Your task to perform on an android device: open app "Spotify" (install if not already installed) and enter user name: "infallible@icloud.com" and password: "implored" Image 0: 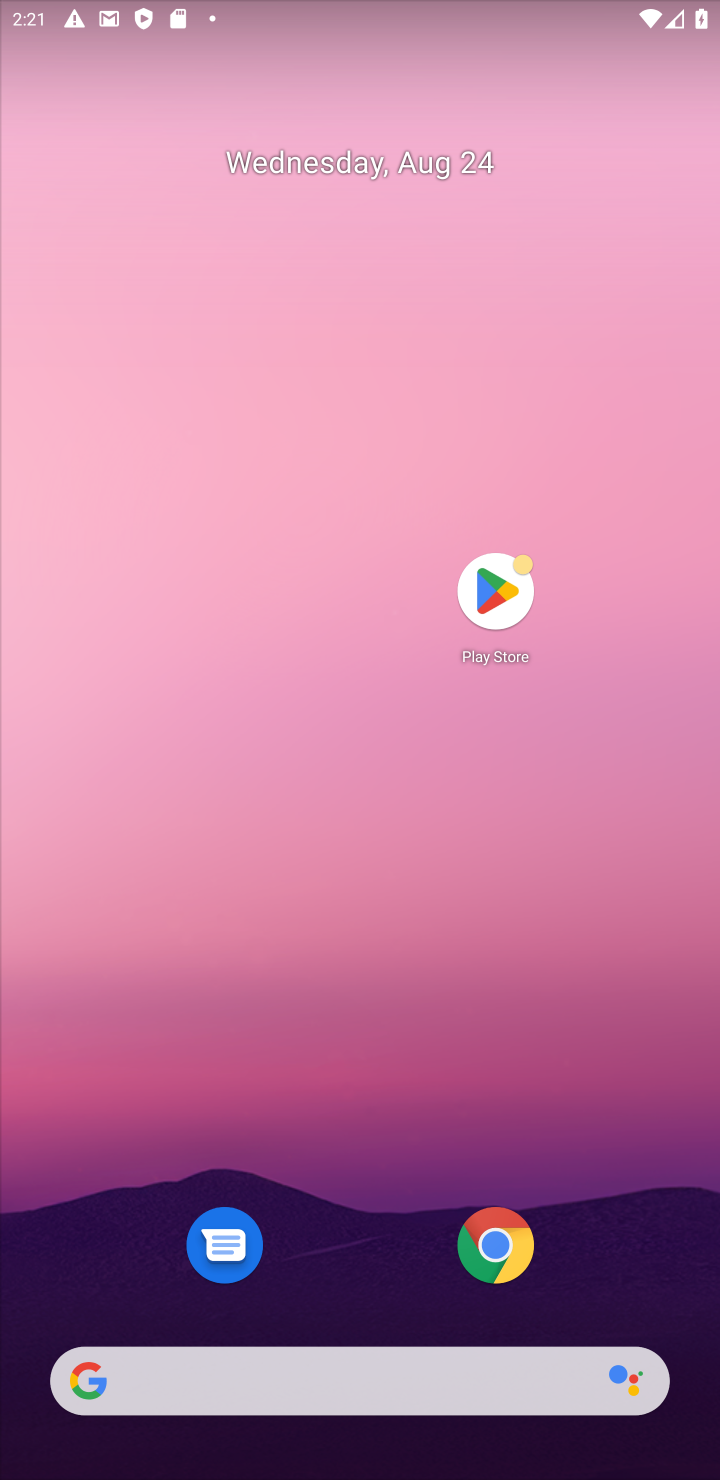
Step 0: click (491, 584)
Your task to perform on an android device: open app "Spotify" (install if not already installed) and enter user name: "infallible@icloud.com" and password: "implored" Image 1: 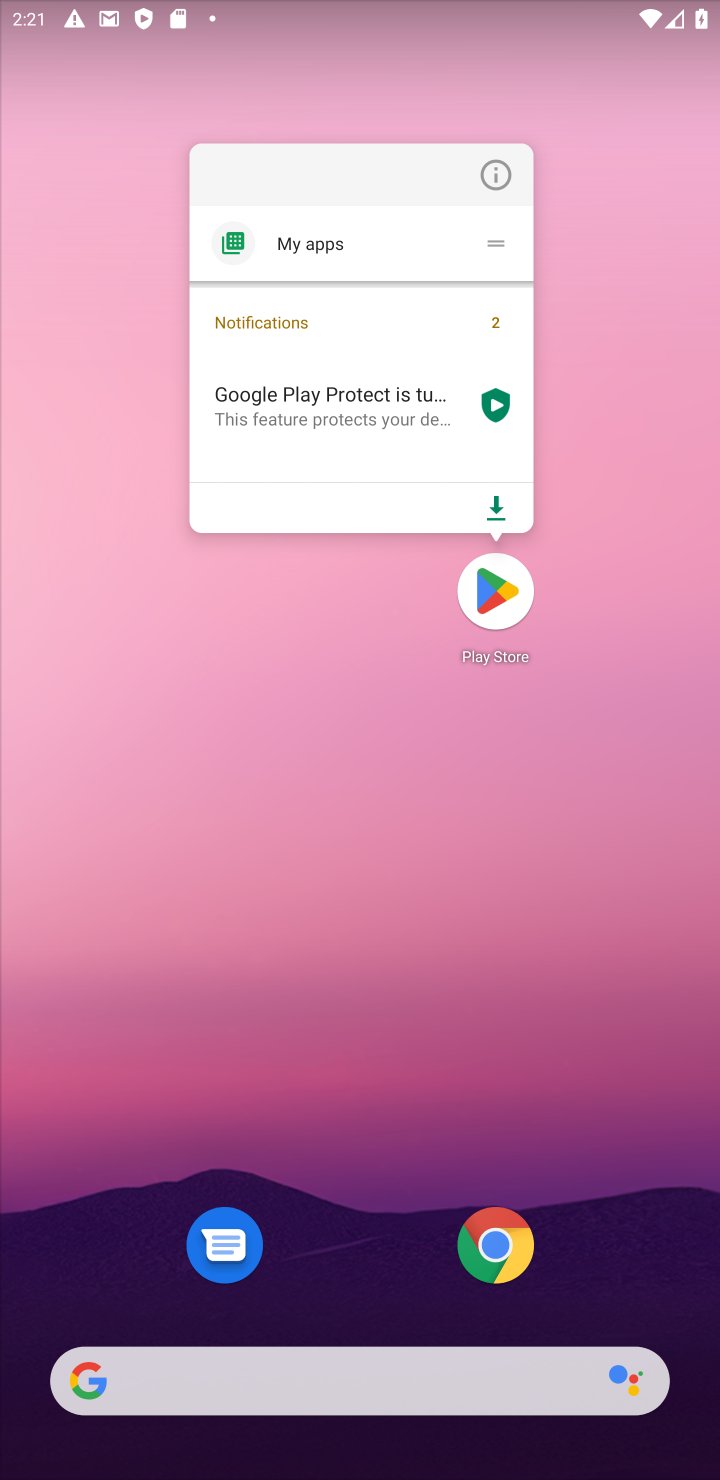
Step 1: click (491, 595)
Your task to perform on an android device: open app "Spotify" (install if not already installed) and enter user name: "infallible@icloud.com" and password: "implored" Image 2: 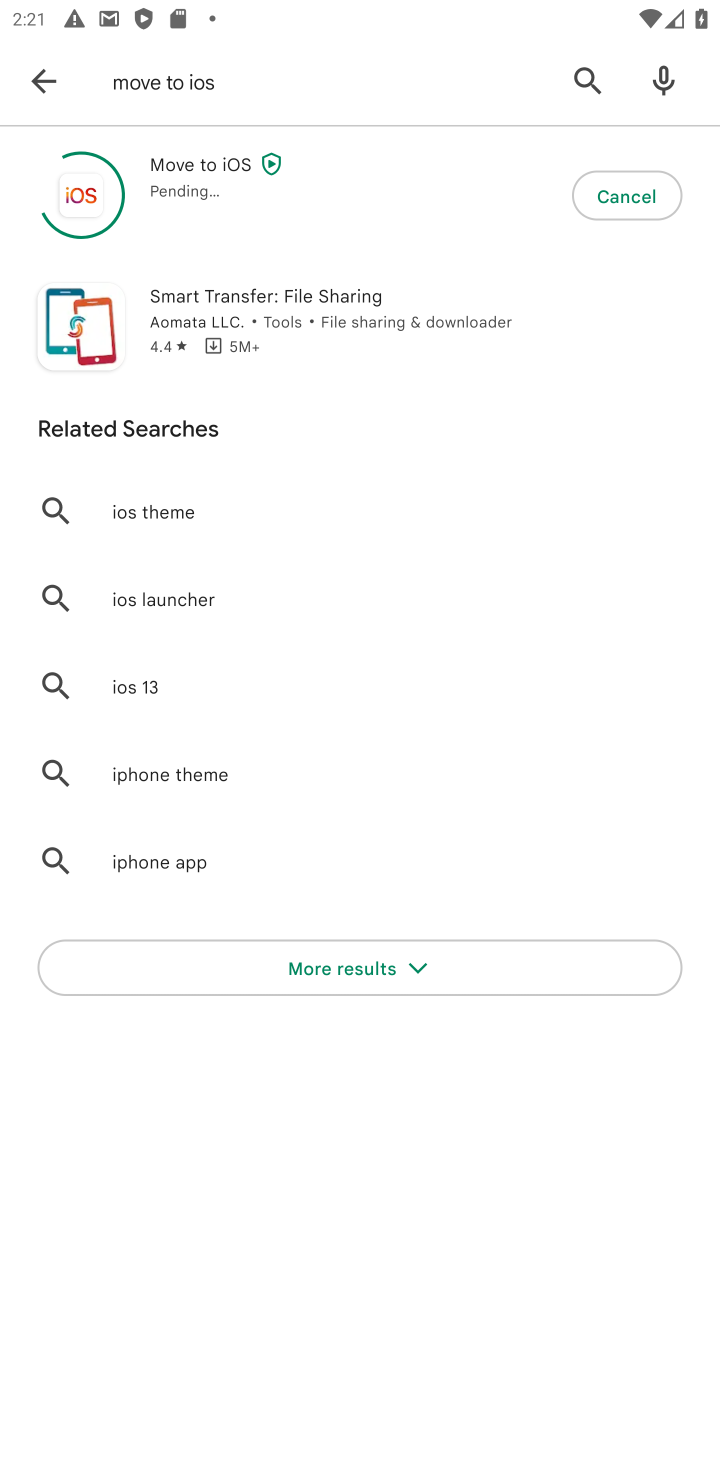
Step 2: click (585, 70)
Your task to perform on an android device: open app "Spotify" (install if not already installed) and enter user name: "infallible@icloud.com" and password: "implored" Image 3: 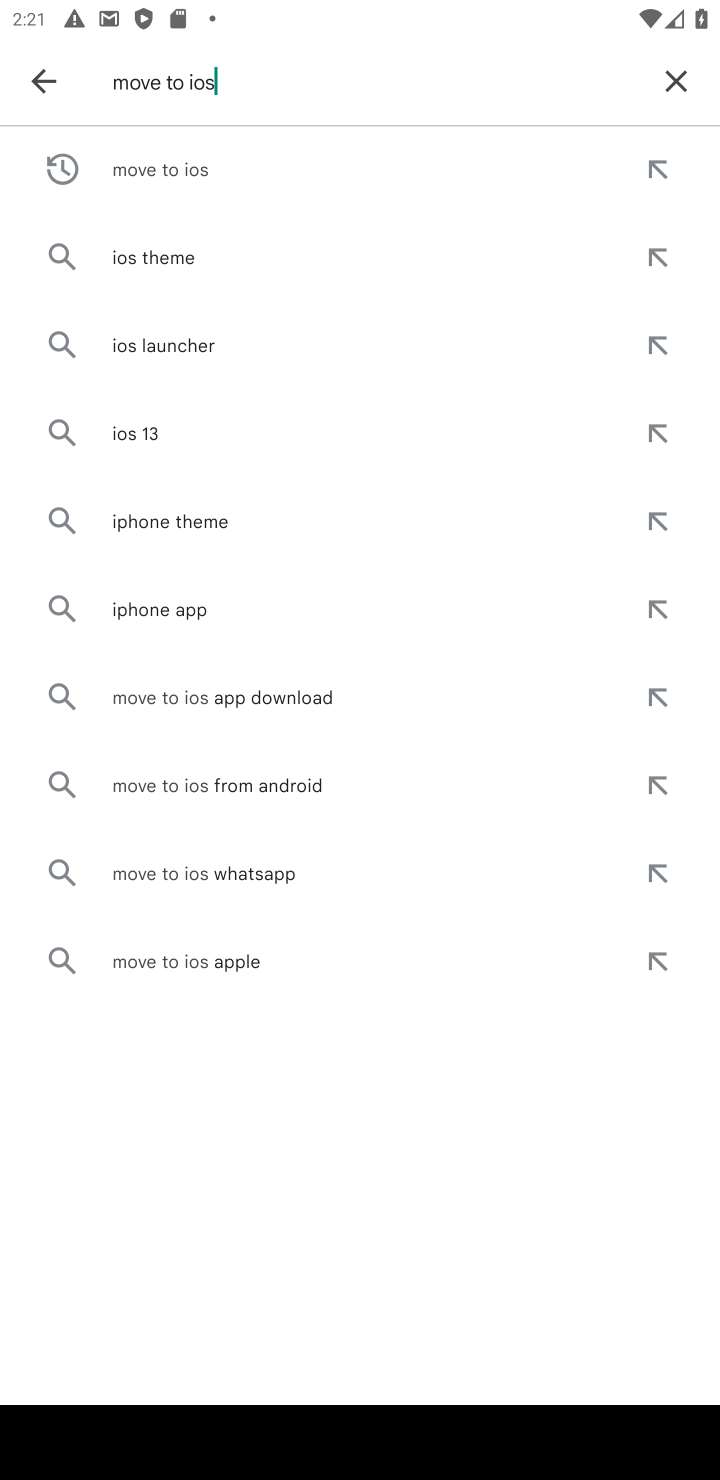
Step 3: click (664, 69)
Your task to perform on an android device: open app "Spotify" (install if not already installed) and enter user name: "infallible@icloud.com" and password: "implored" Image 4: 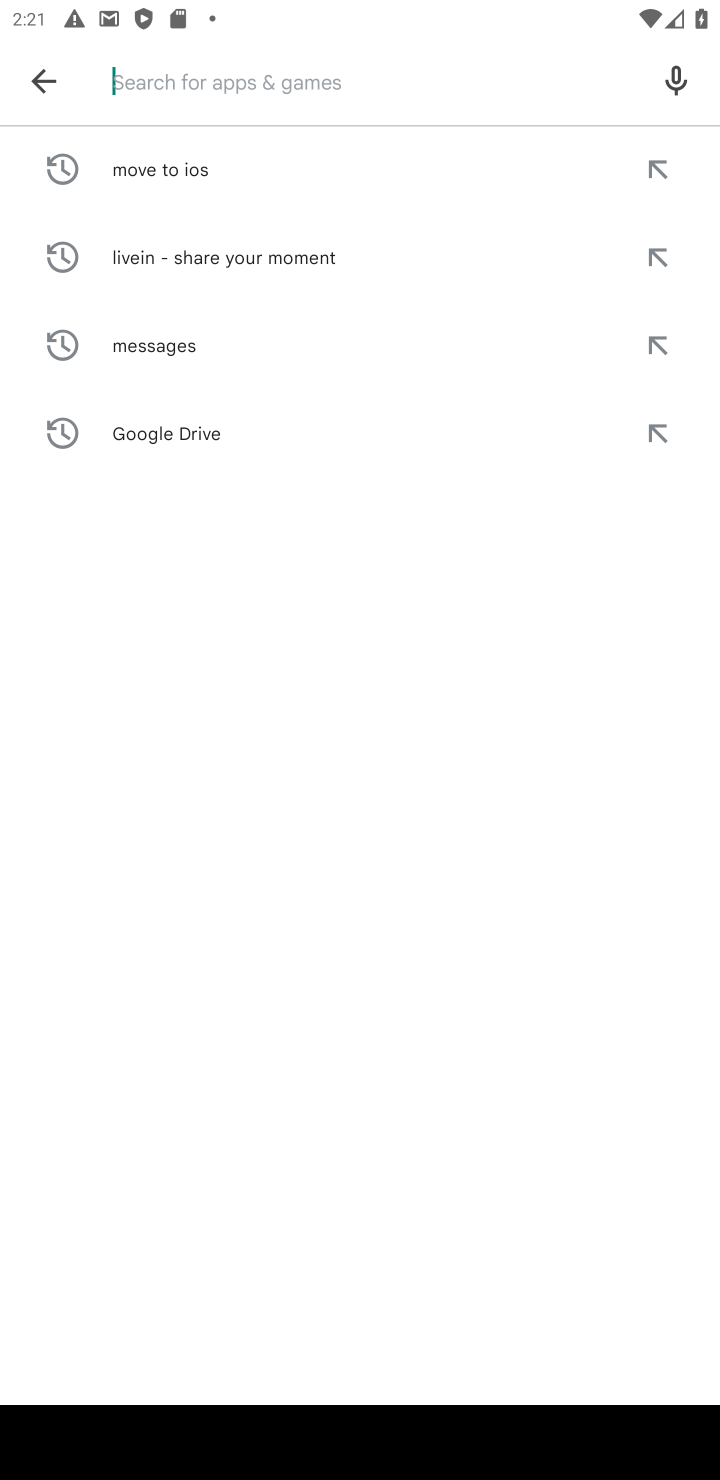
Step 4: type "Spotify"
Your task to perform on an android device: open app "Spotify" (install if not already installed) and enter user name: "infallible@icloud.com" and password: "implored" Image 5: 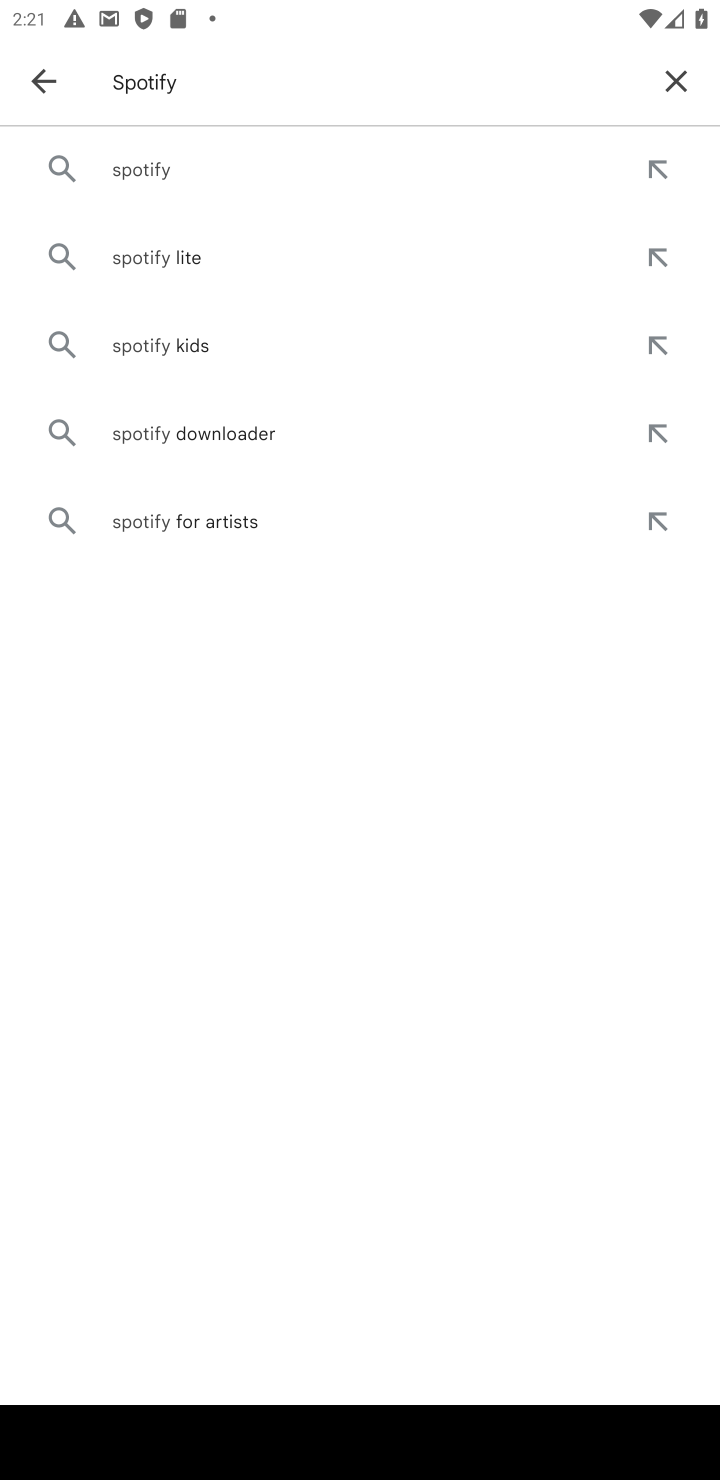
Step 5: click (114, 172)
Your task to perform on an android device: open app "Spotify" (install if not already installed) and enter user name: "infallible@icloud.com" and password: "implored" Image 6: 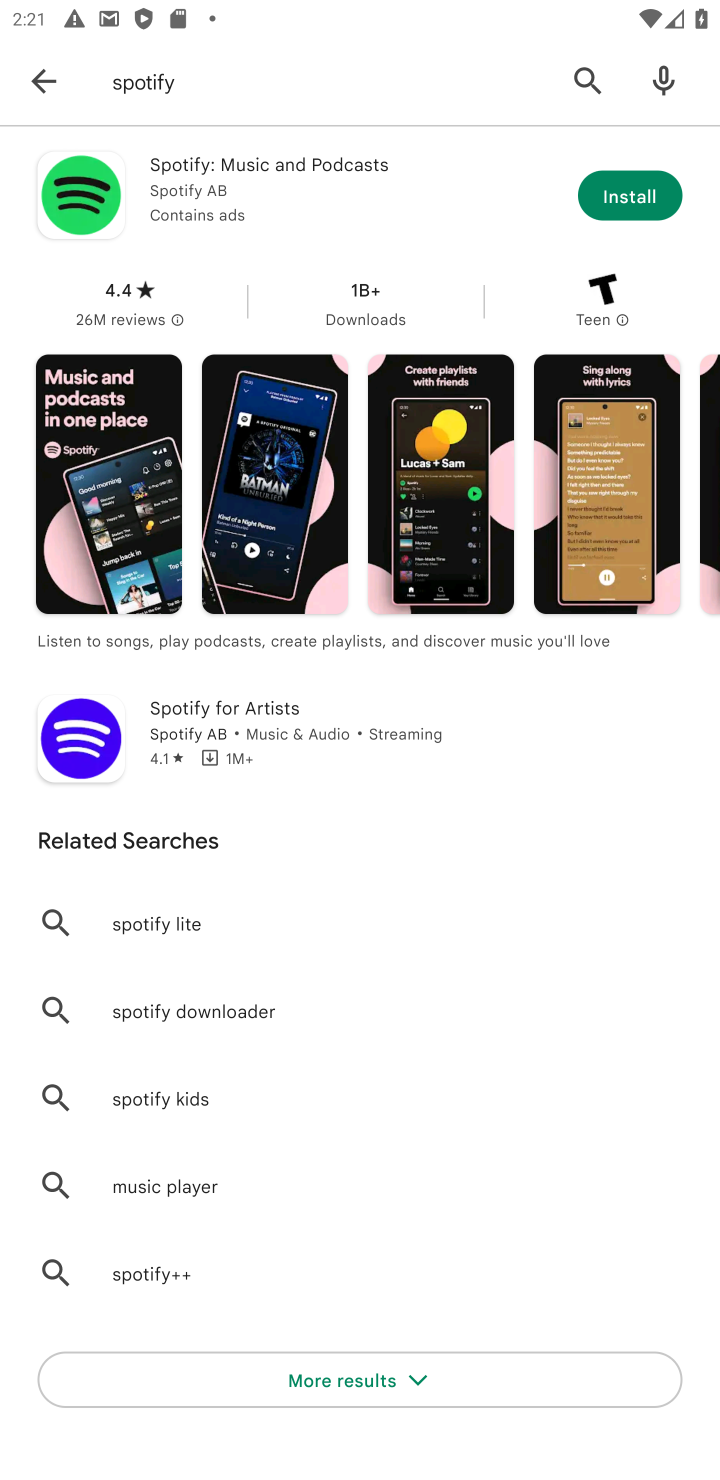
Step 6: click (640, 192)
Your task to perform on an android device: open app "Spotify" (install if not already installed) and enter user name: "infallible@icloud.com" and password: "implored" Image 7: 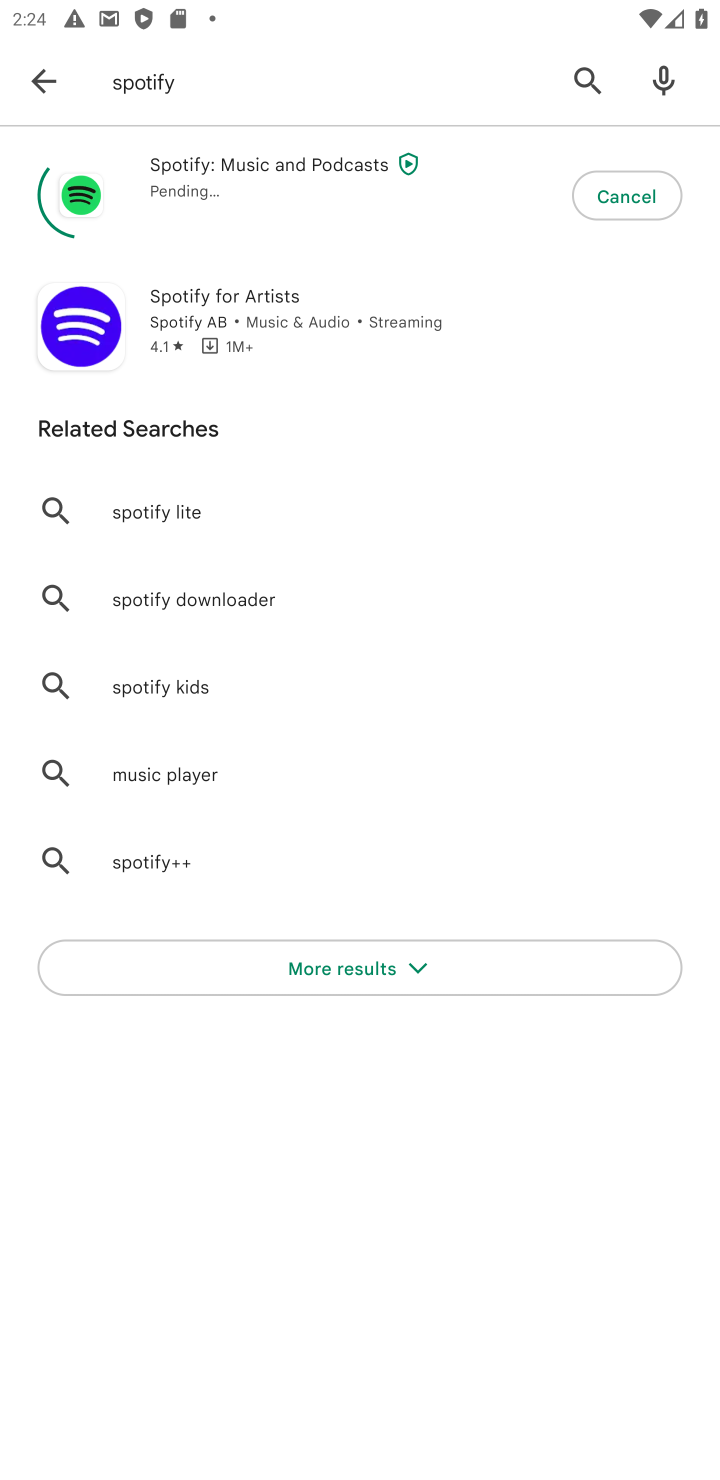
Step 7: task complete